Your task to perform on an android device: open a bookmark in the chrome app Image 0: 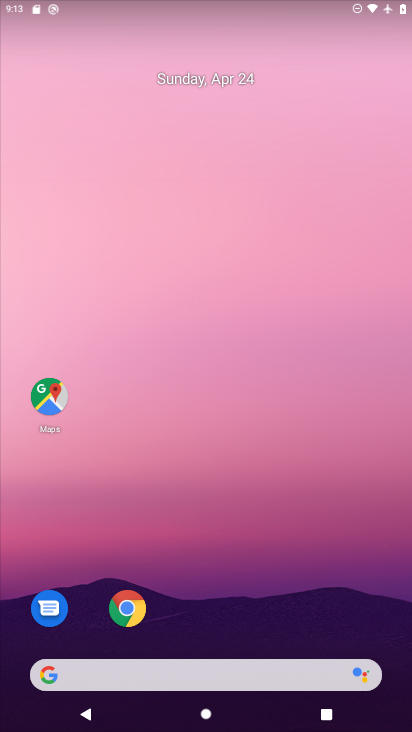
Step 0: click (139, 611)
Your task to perform on an android device: open a bookmark in the chrome app Image 1: 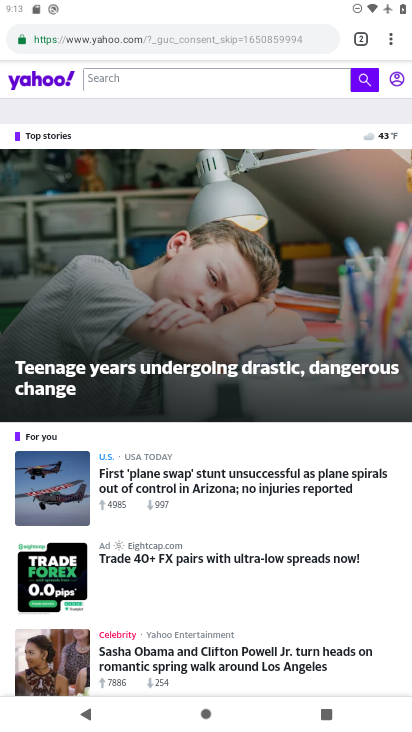
Step 1: drag from (391, 35) to (313, 189)
Your task to perform on an android device: open a bookmark in the chrome app Image 2: 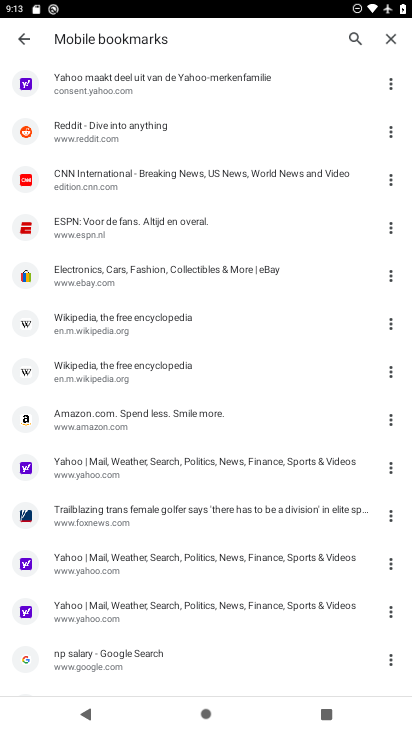
Step 2: click (116, 240)
Your task to perform on an android device: open a bookmark in the chrome app Image 3: 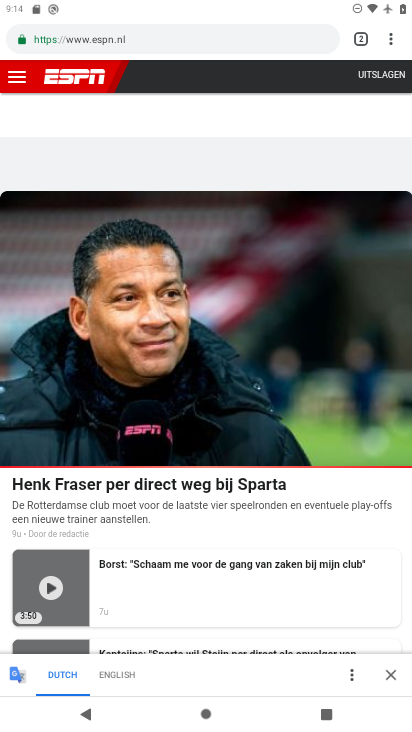
Step 3: task complete